Your task to perform on an android device: Open sound settings Image 0: 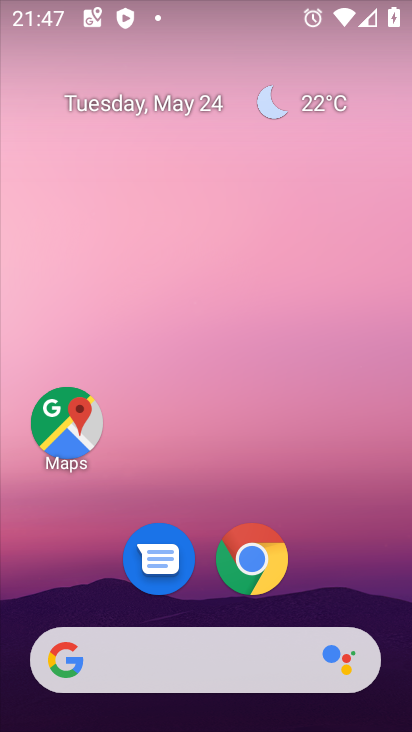
Step 0: drag from (335, 361) to (329, 124)
Your task to perform on an android device: Open sound settings Image 1: 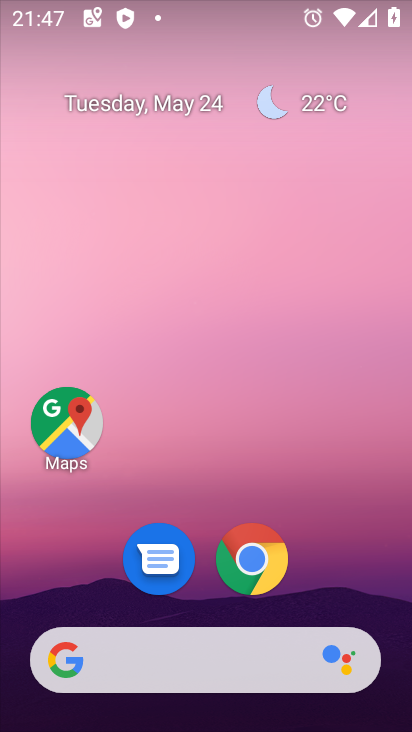
Step 1: drag from (345, 472) to (336, 46)
Your task to perform on an android device: Open sound settings Image 2: 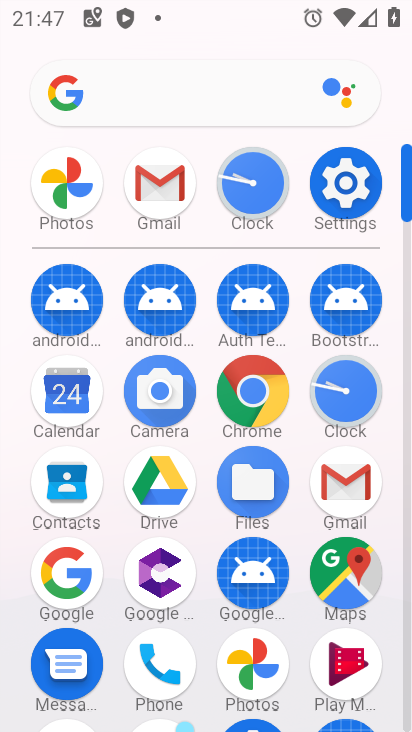
Step 2: click (354, 170)
Your task to perform on an android device: Open sound settings Image 3: 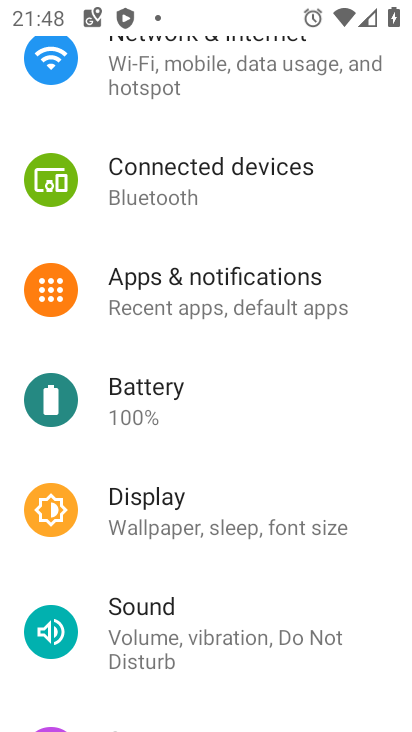
Step 3: click (229, 633)
Your task to perform on an android device: Open sound settings Image 4: 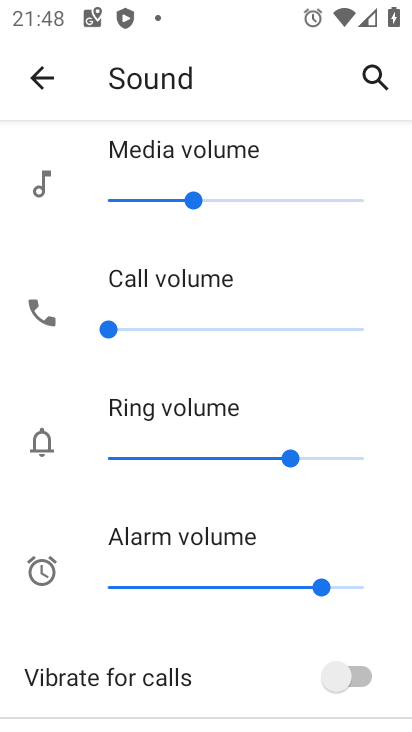
Step 4: task complete